Your task to perform on an android device: What is the recent news? Image 0: 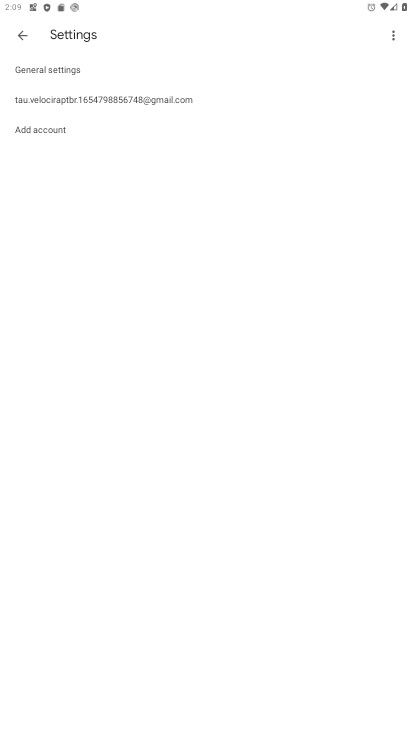
Step 0: press home button
Your task to perform on an android device: What is the recent news? Image 1: 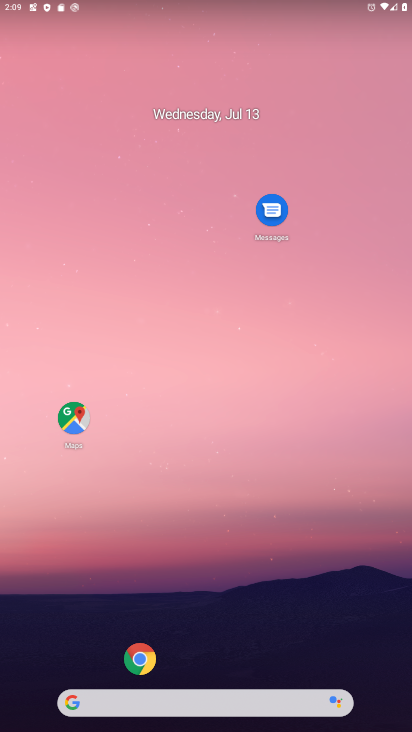
Step 1: click (179, 695)
Your task to perform on an android device: What is the recent news? Image 2: 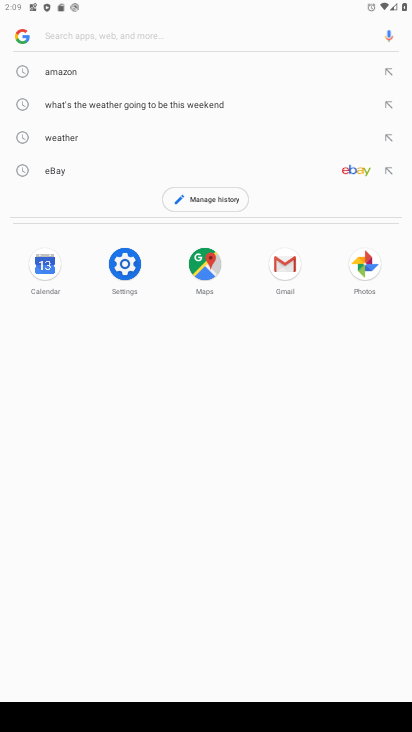
Step 2: click (100, 29)
Your task to perform on an android device: What is the recent news? Image 3: 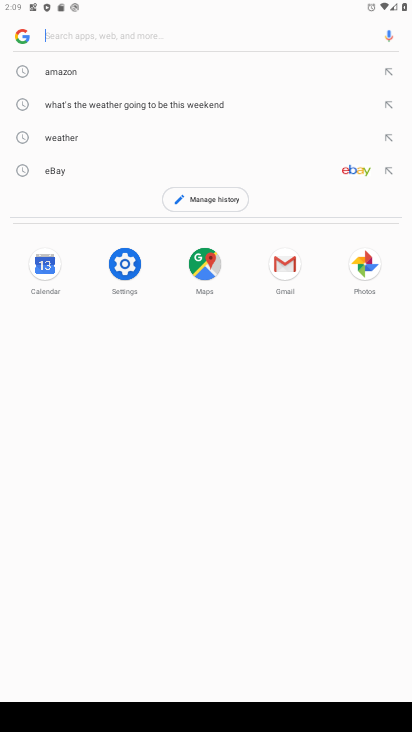
Step 3: type "What is the recent news?"
Your task to perform on an android device: What is the recent news? Image 4: 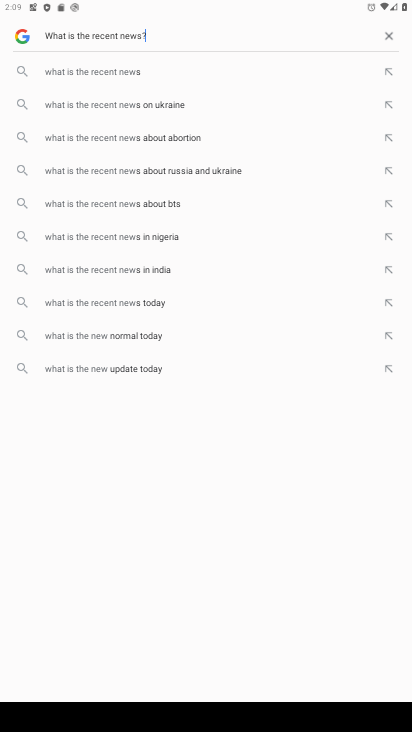
Step 4: type ""
Your task to perform on an android device: What is the recent news? Image 5: 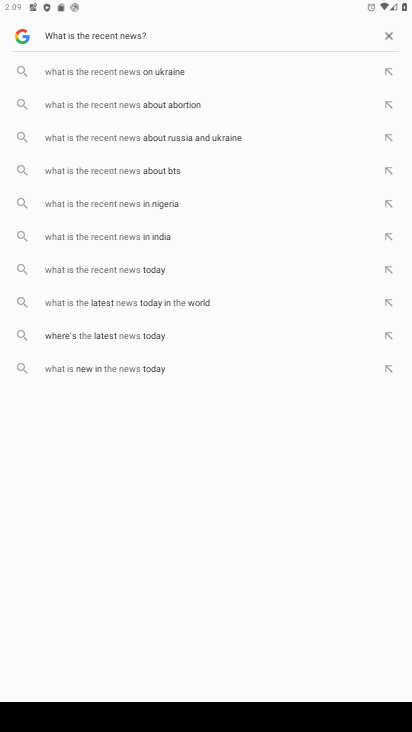
Step 5: type ""
Your task to perform on an android device: What is the recent news? Image 6: 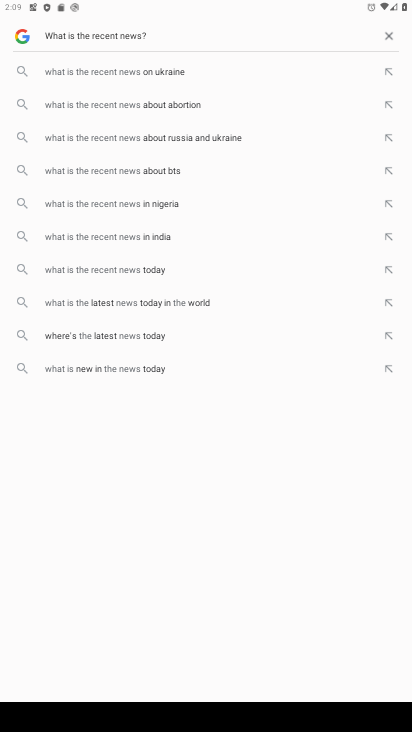
Step 6: type ""
Your task to perform on an android device: What is the recent news? Image 7: 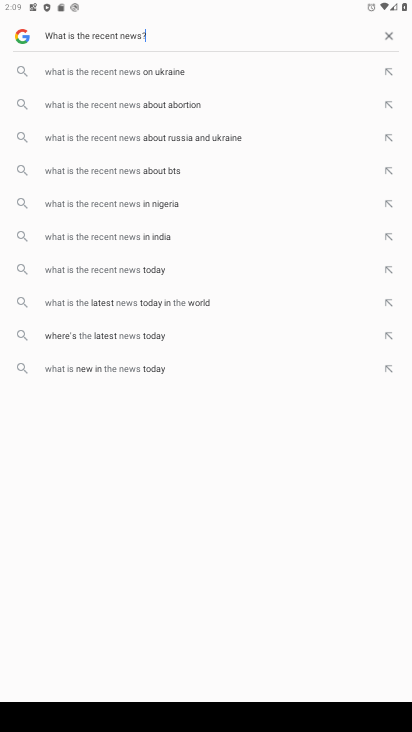
Step 7: type ""
Your task to perform on an android device: What is the recent news? Image 8: 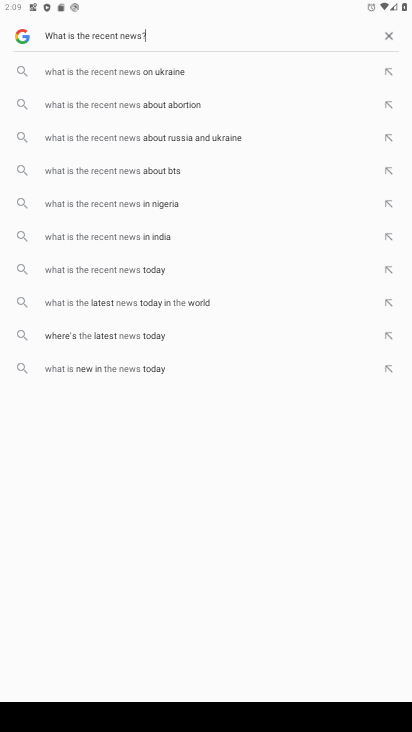
Step 8: task complete